Your task to perform on an android device: Open Yahoo.com Image 0: 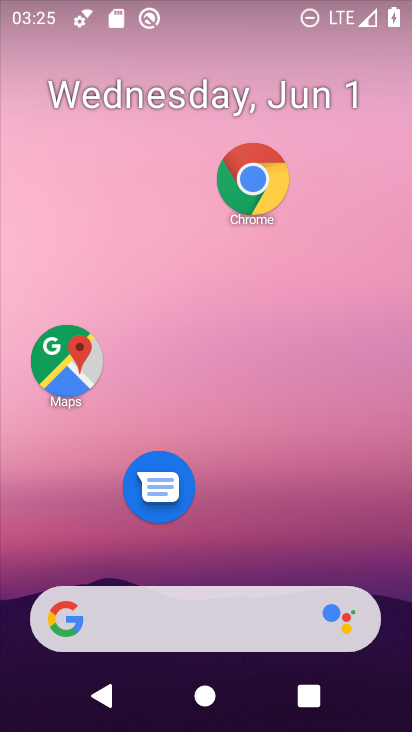
Step 0: click (251, 189)
Your task to perform on an android device: Open Yahoo.com Image 1: 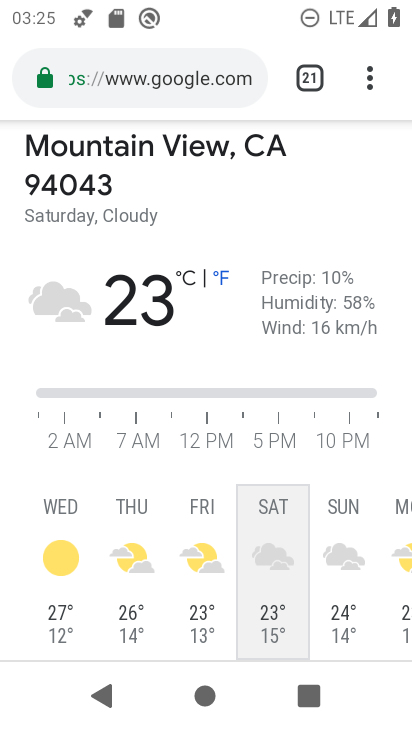
Step 1: click (401, 68)
Your task to perform on an android device: Open Yahoo.com Image 2: 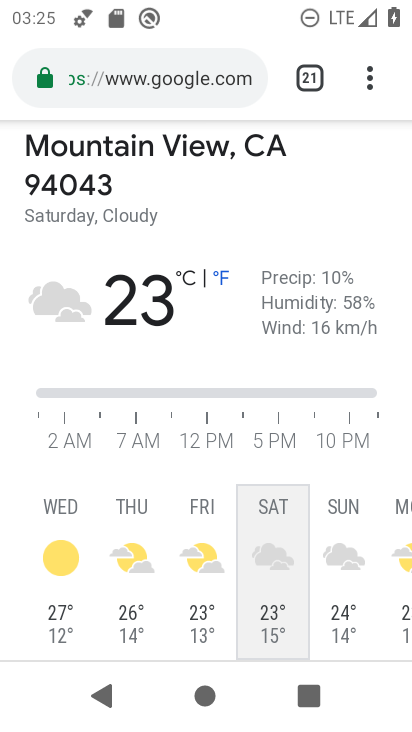
Step 2: click (387, 73)
Your task to perform on an android device: Open Yahoo.com Image 3: 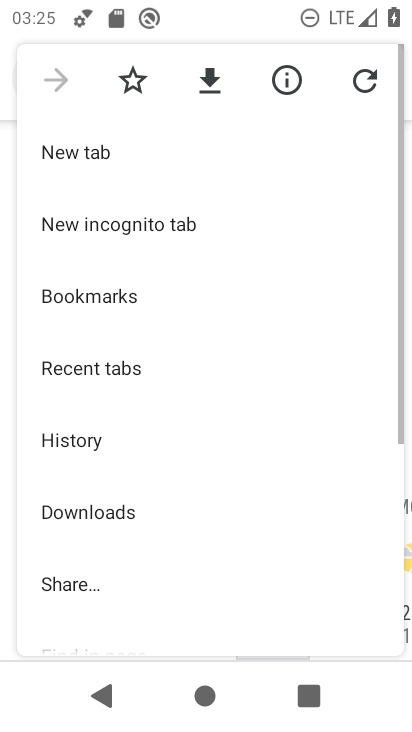
Step 3: click (128, 157)
Your task to perform on an android device: Open Yahoo.com Image 4: 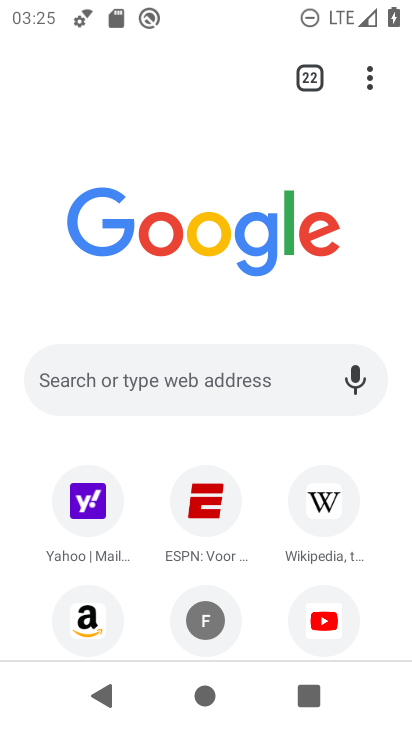
Step 4: click (99, 499)
Your task to perform on an android device: Open Yahoo.com Image 5: 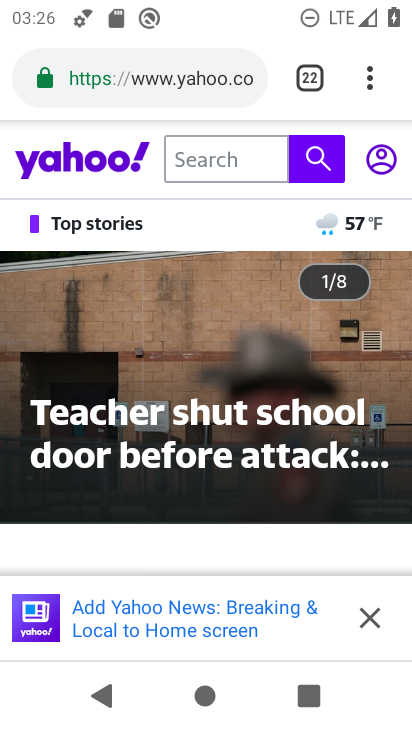
Step 5: task complete